Your task to perform on an android device: turn on showing notifications on the lock screen Image 0: 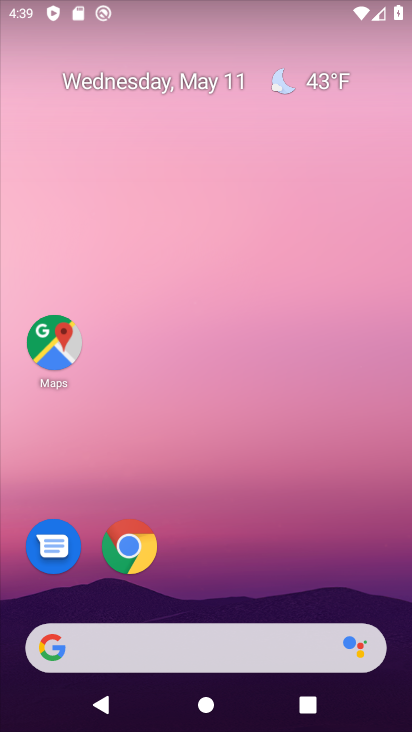
Step 0: press home button
Your task to perform on an android device: turn on showing notifications on the lock screen Image 1: 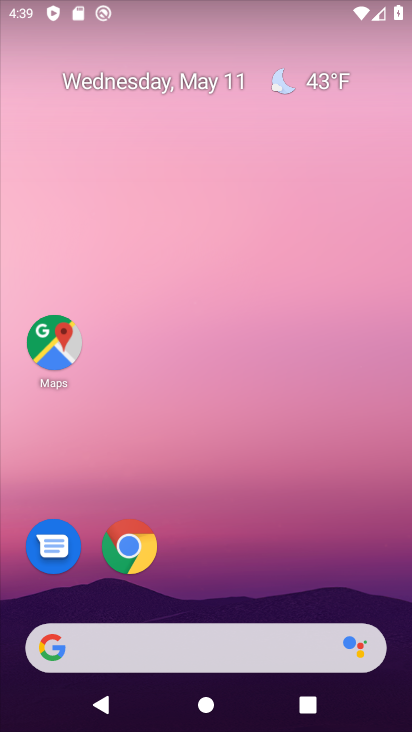
Step 1: drag from (255, 618) to (242, 217)
Your task to perform on an android device: turn on showing notifications on the lock screen Image 2: 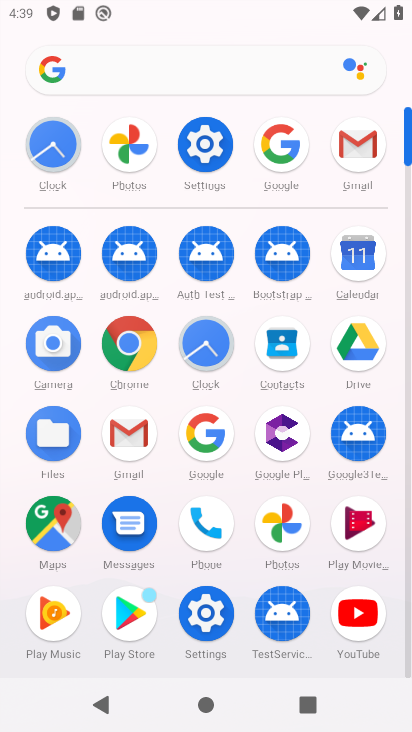
Step 2: click (366, 145)
Your task to perform on an android device: turn on showing notifications on the lock screen Image 3: 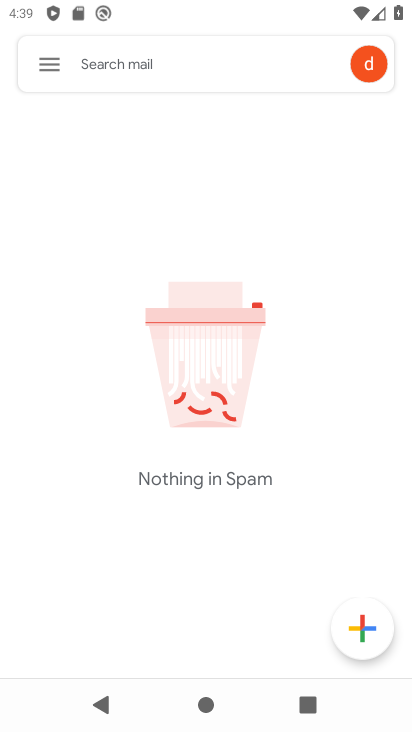
Step 3: press home button
Your task to perform on an android device: turn on showing notifications on the lock screen Image 4: 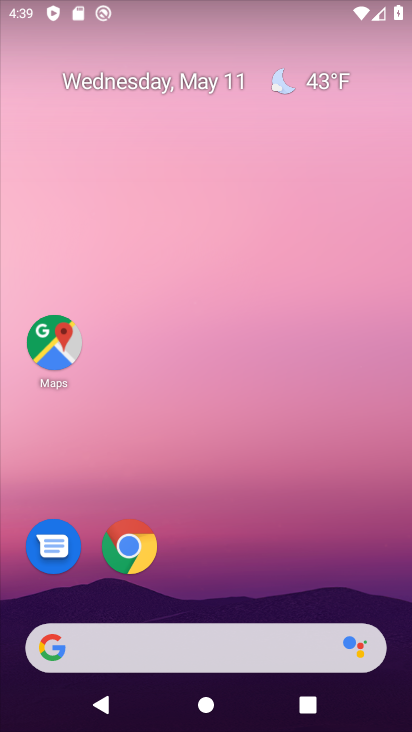
Step 4: drag from (185, 624) to (133, 248)
Your task to perform on an android device: turn on showing notifications on the lock screen Image 5: 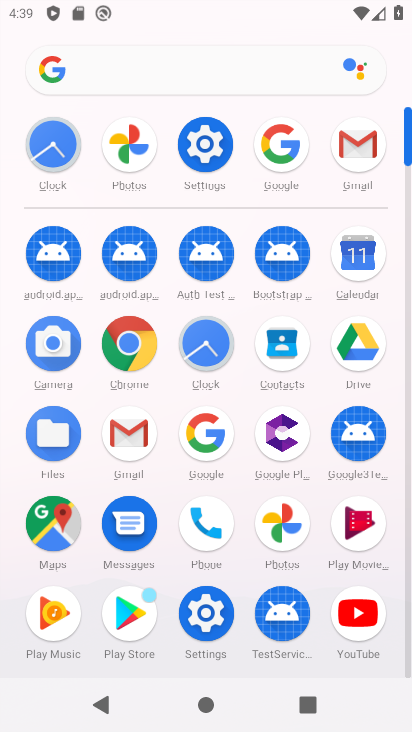
Step 5: click (205, 137)
Your task to perform on an android device: turn on showing notifications on the lock screen Image 6: 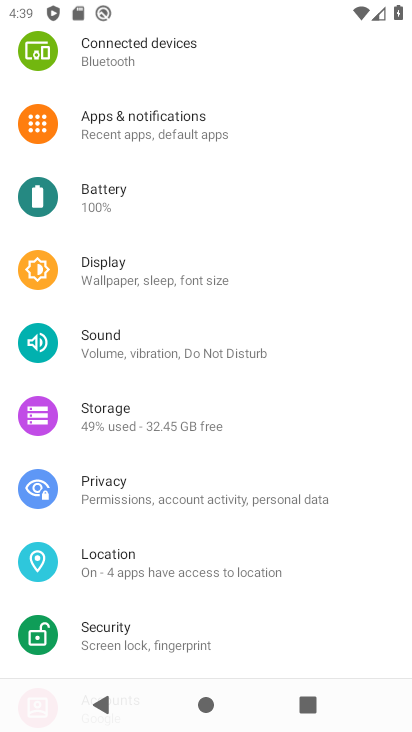
Step 6: drag from (170, 628) to (153, 276)
Your task to perform on an android device: turn on showing notifications on the lock screen Image 7: 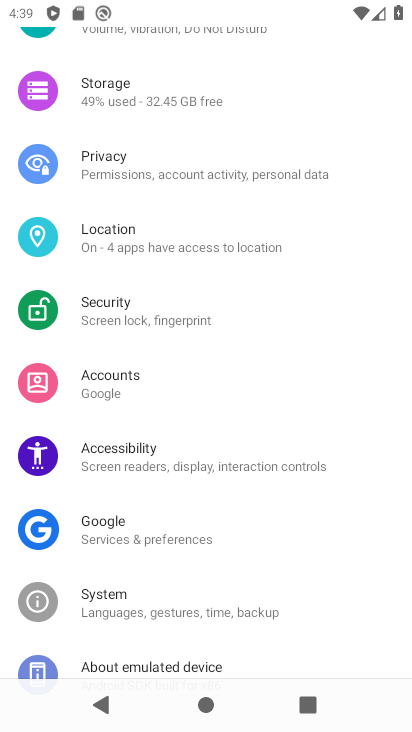
Step 7: drag from (163, 97) to (163, 497)
Your task to perform on an android device: turn on showing notifications on the lock screen Image 8: 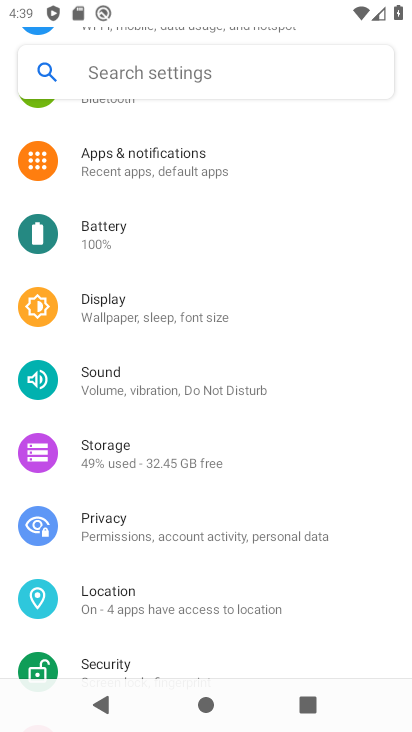
Step 8: click (132, 528)
Your task to perform on an android device: turn on showing notifications on the lock screen Image 9: 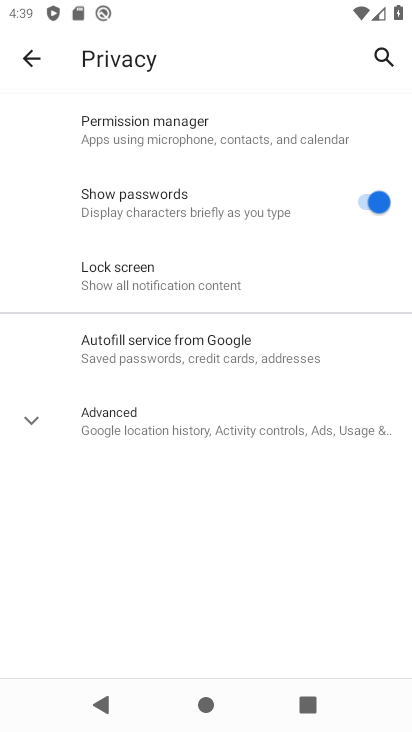
Step 9: click (113, 261)
Your task to perform on an android device: turn on showing notifications on the lock screen Image 10: 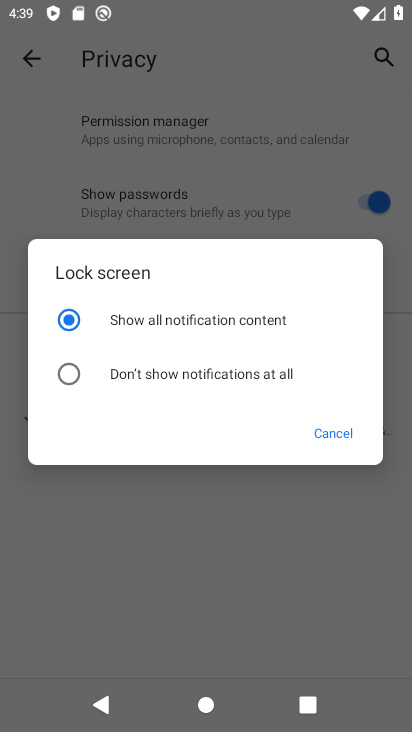
Step 10: click (323, 429)
Your task to perform on an android device: turn on showing notifications on the lock screen Image 11: 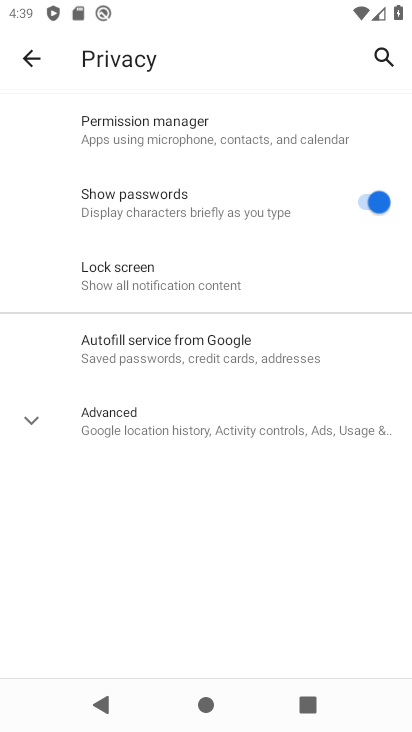
Step 11: task complete